Your task to perform on an android device: Play the last video I watched on Youtube Image 0: 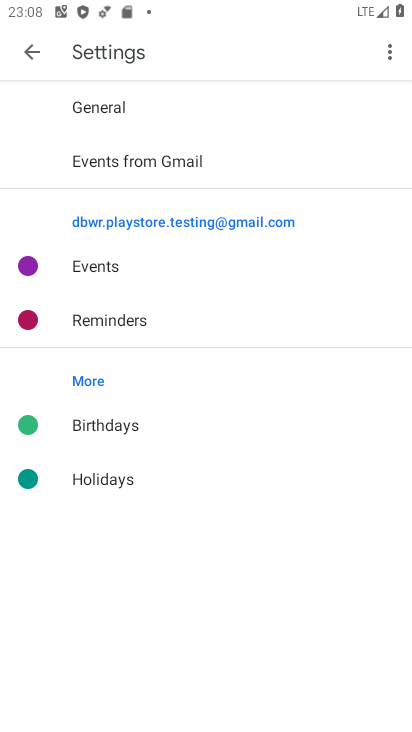
Step 0: press home button
Your task to perform on an android device: Play the last video I watched on Youtube Image 1: 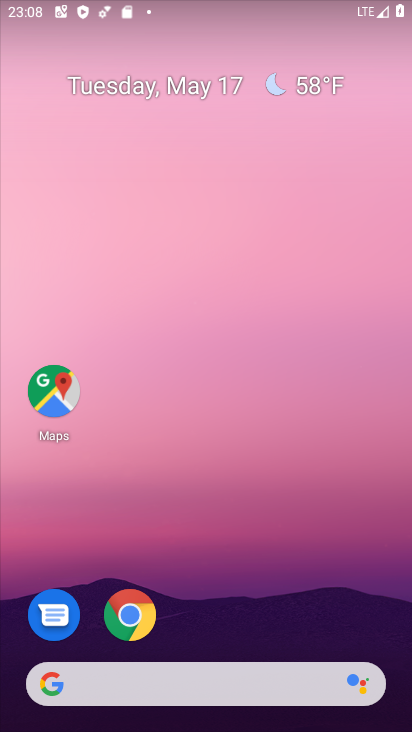
Step 1: drag from (212, 608) to (212, 261)
Your task to perform on an android device: Play the last video I watched on Youtube Image 2: 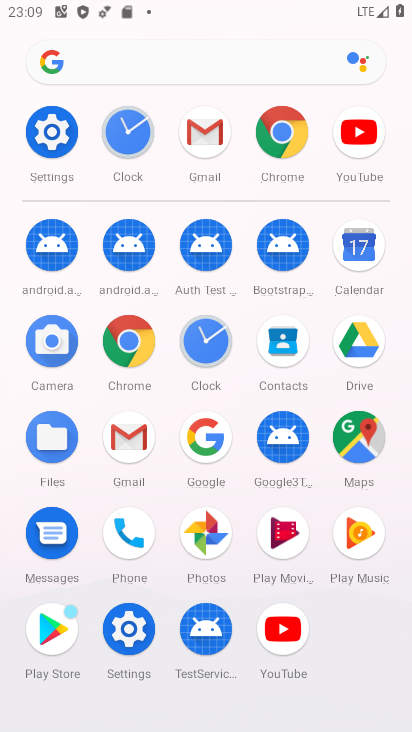
Step 2: click (367, 142)
Your task to perform on an android device: Play the last video I watched on Youtube Image 3: 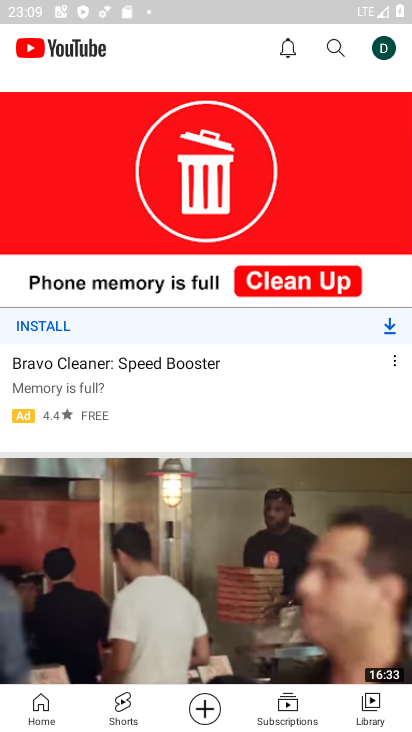
Step 3: click (367, 704)
Your task to perform on an android device: Play the last video I watched on Youtube Image 4: 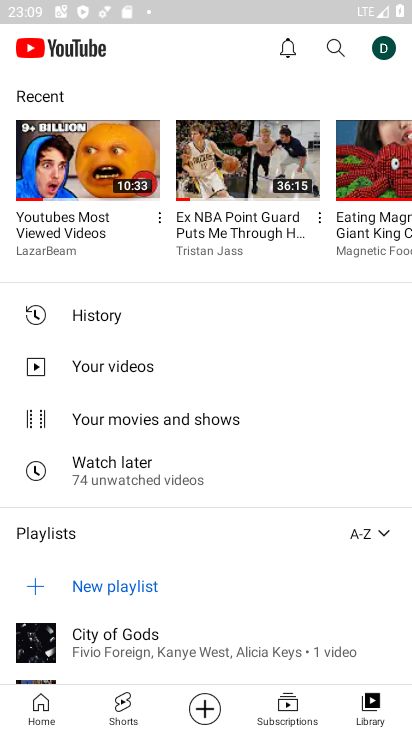
Step 4: click (103, 322)
Your task to perform on an android device: Play the last video I watched on Youtube Image 5: 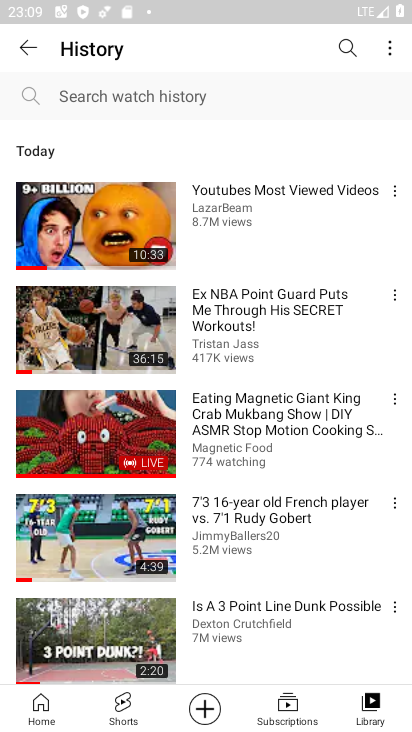
Step 5: task complete